Your task to perform on an android device: What's on my calendar tomorrow? Image 0: 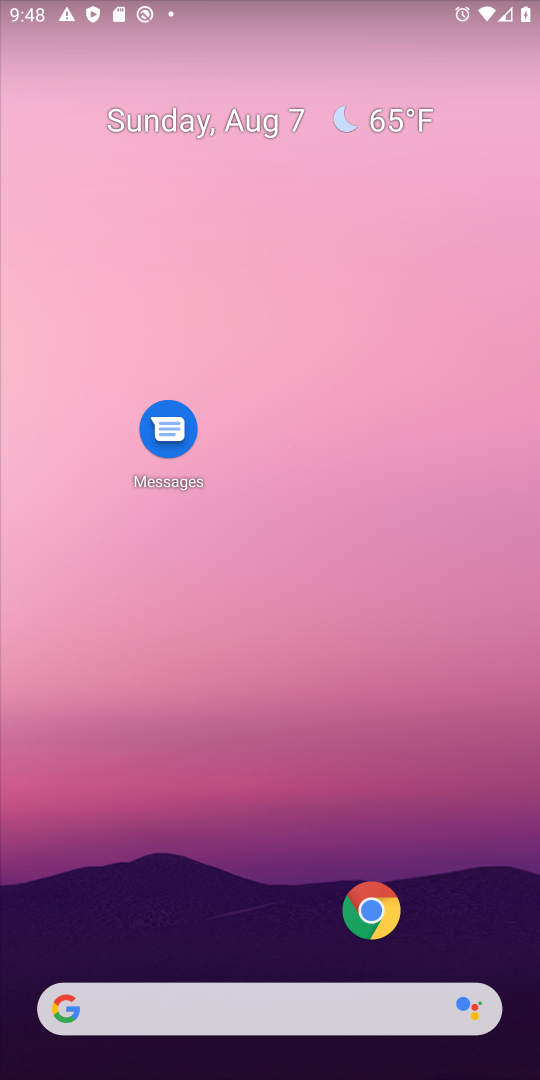
Step 0: drag from (249, 958) to (249, 553)
Your task to perform on an android device: What's on my calendar tomorrow? Image 1: 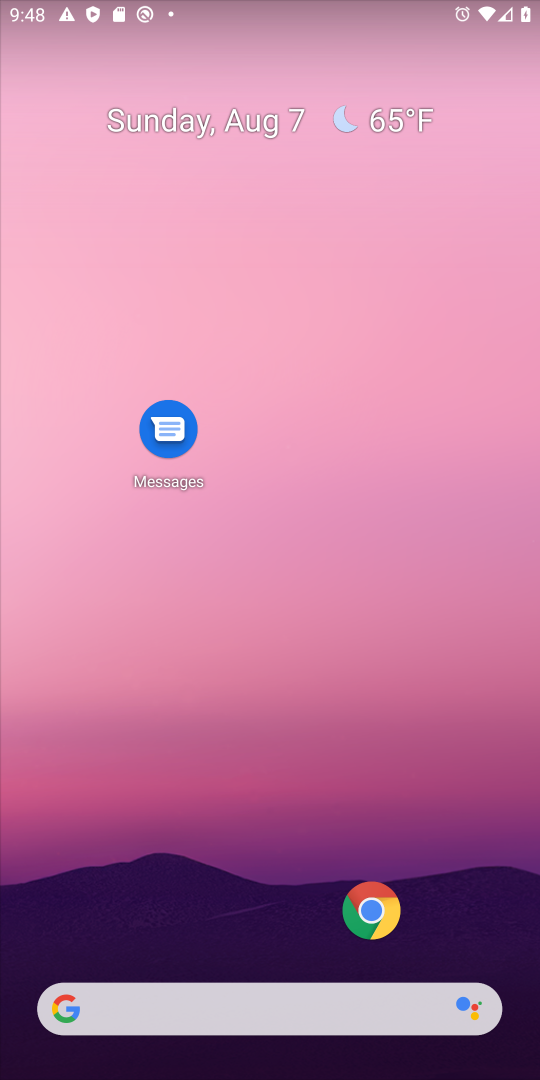
Step 1: drag from (277, 802) to (296, 497)
Your task to perform on an android device: What's on my calendar tomorrow? Image 2: 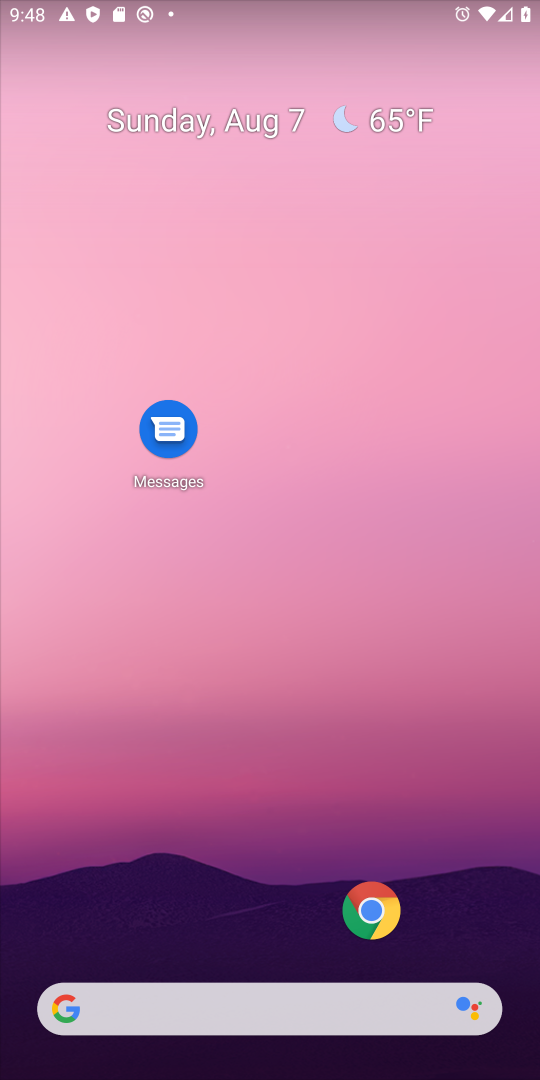
Step 2: drag from (222, 964) to (222, 455)
Your task to perform on an android device: What's on my calendar tomorrow? Image 3: 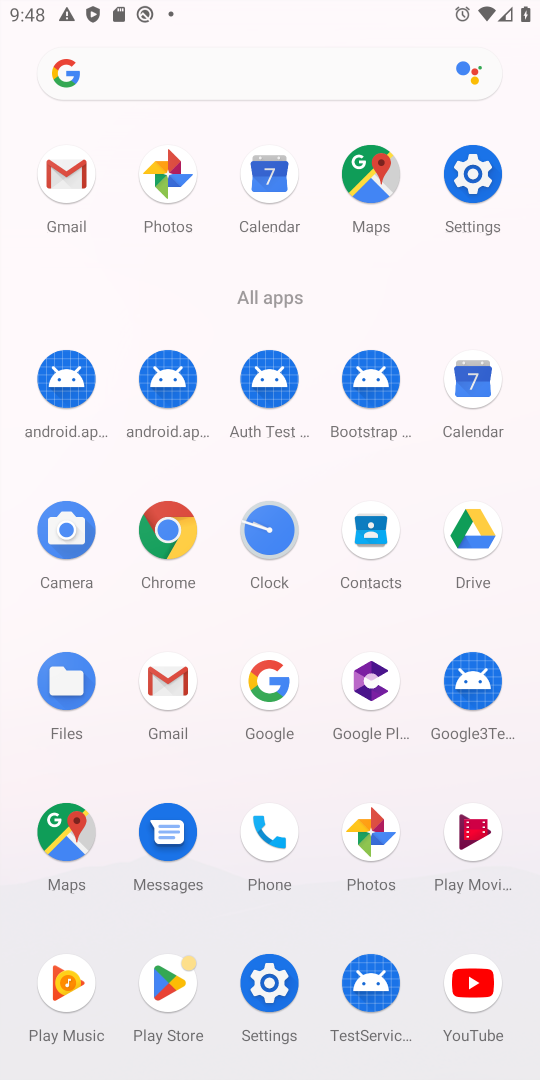
Step 3: click (473, 373)
Your task to perform on an android device: What's on my calendar tomorrow? Image 4: 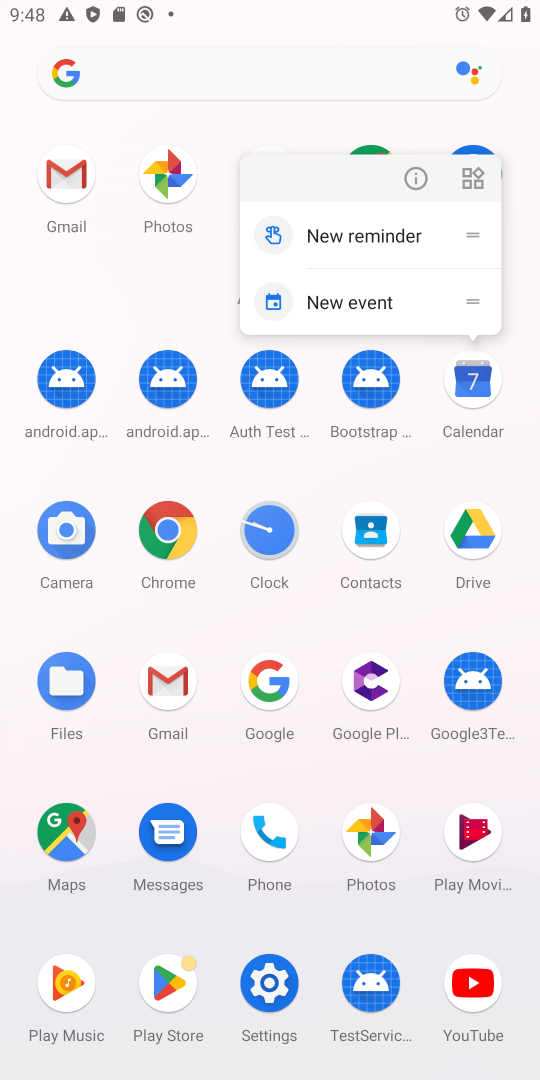
Step 4: click (483, 390)
Your task to perform on an android device: What's on my calendar tomorrow? Image 5: 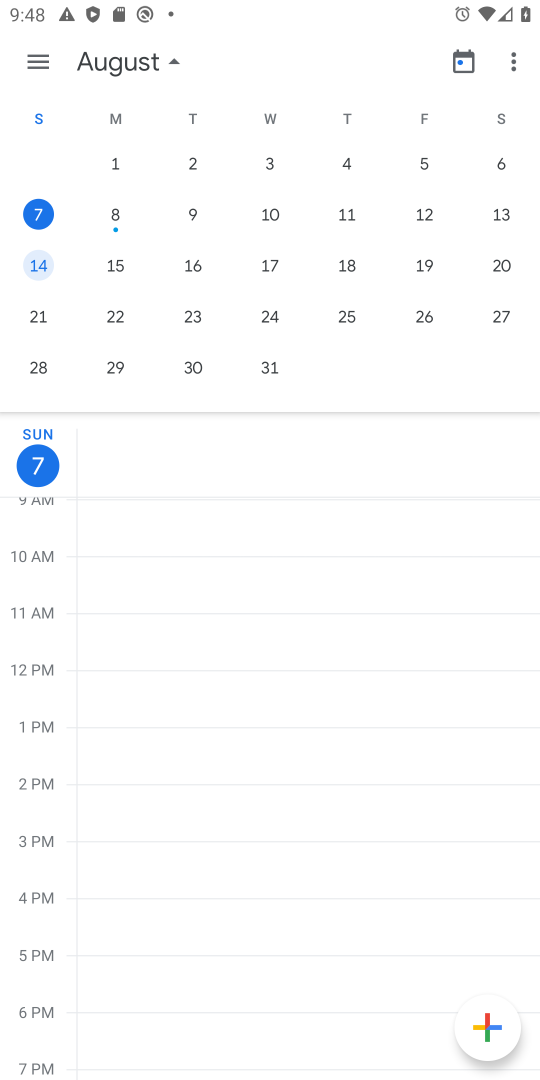
Step 5: click (116, 217)
Your task to perform on an android device: What's on my calendar tomorrow? Image 6: 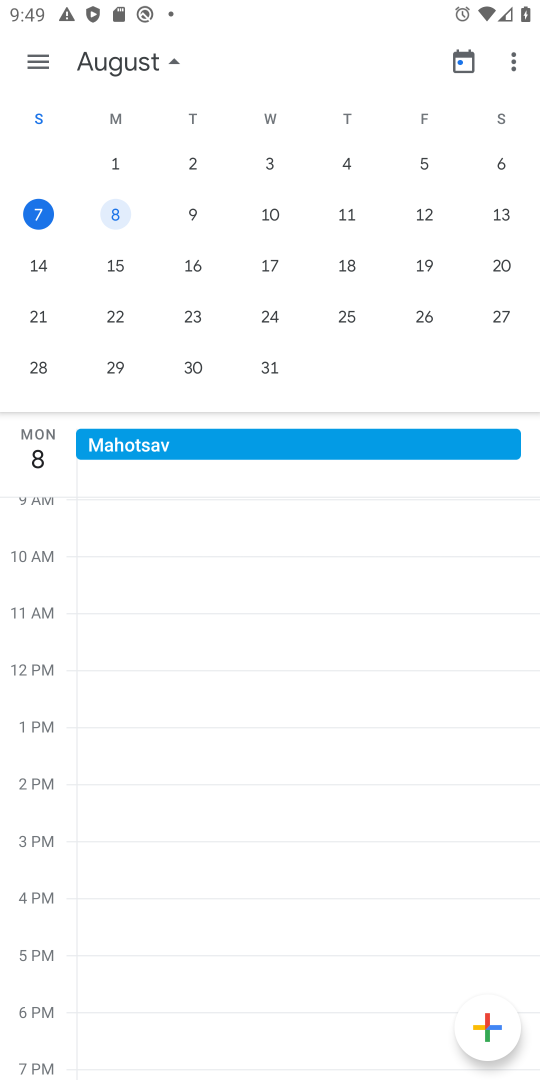
Step 6: task complete